Your task to perform on an android device: change the clock display to analog Image 0: 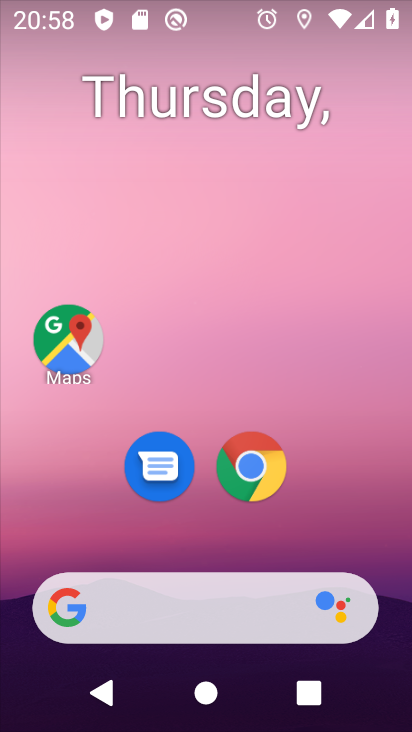
Step 0: drag from (207, 563) to (187, 20)
Your task to perform on an android device: change the clock display to analog Image 1: 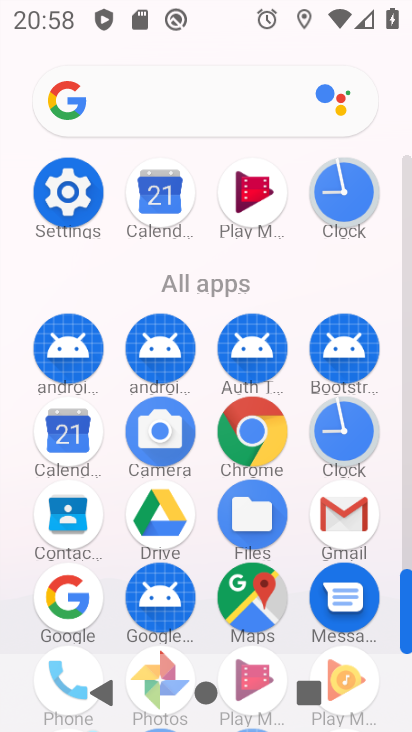
Step 1: click (360, 437)
Your task to perform on an android device: change the clock display to analog Image 2: 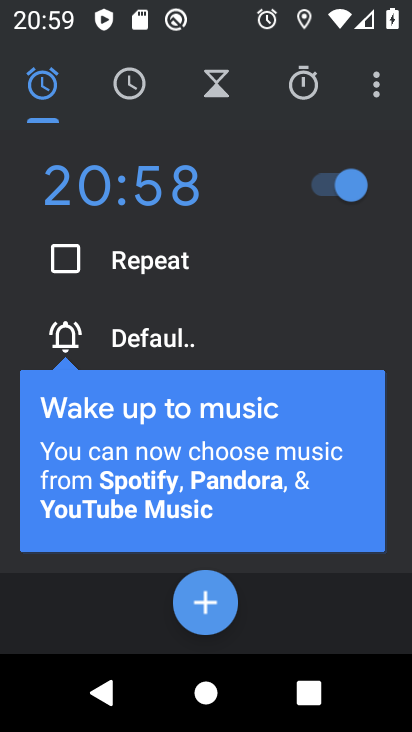
Step 2: click (379, 80)
Your task to perform on an android device: change the clock display to analog Image 3: 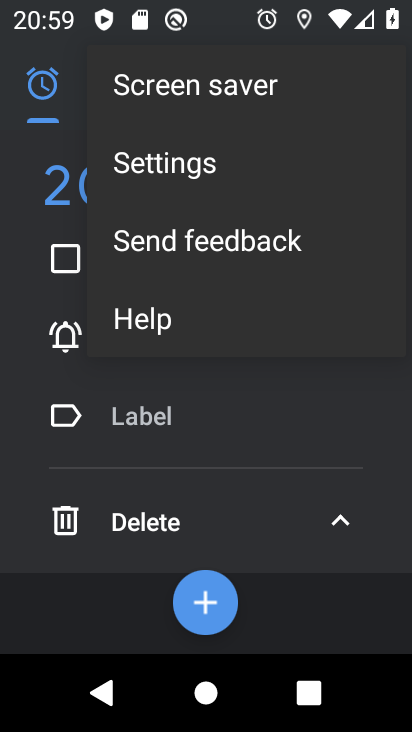
Step 3: click (155, 160)
Your task to perform on an android device: change the clock display to analog Image 4: 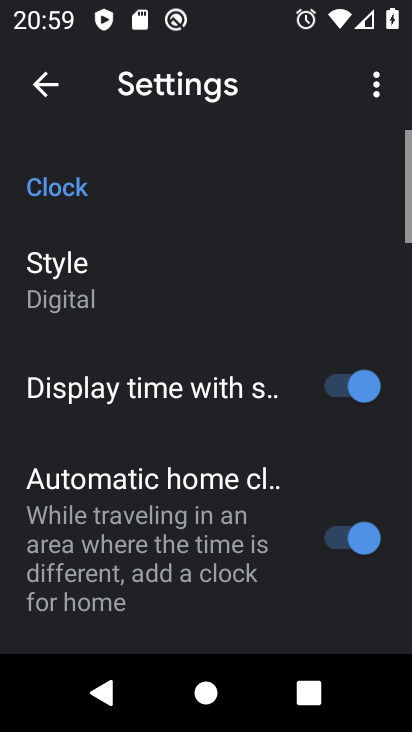
Step 4: click (127, 275)
Your task to perform on an android device: change the clock display to analog Image 5: 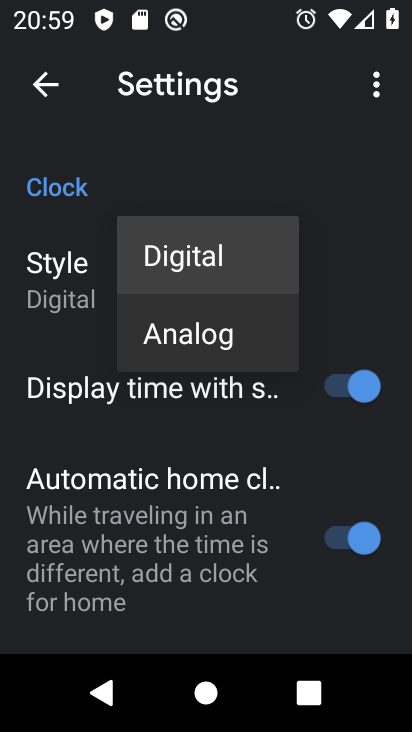
Step 5: click (181, 325)
Your task to perform on an android device: change the clock display to analog Image 6: 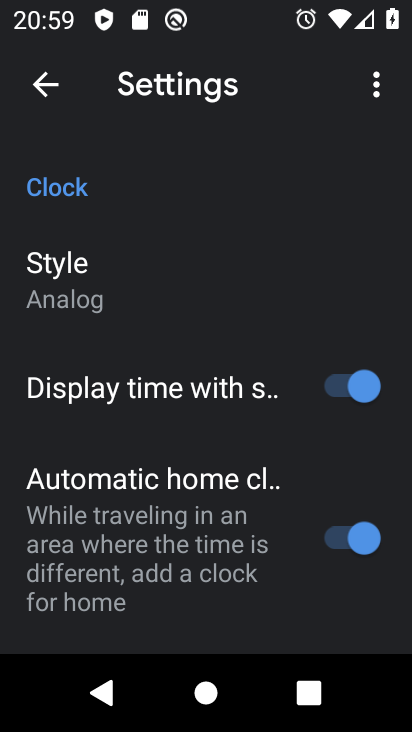
Step 6: task complete